Your task to perform on an android device: turn on wifi Image 0: 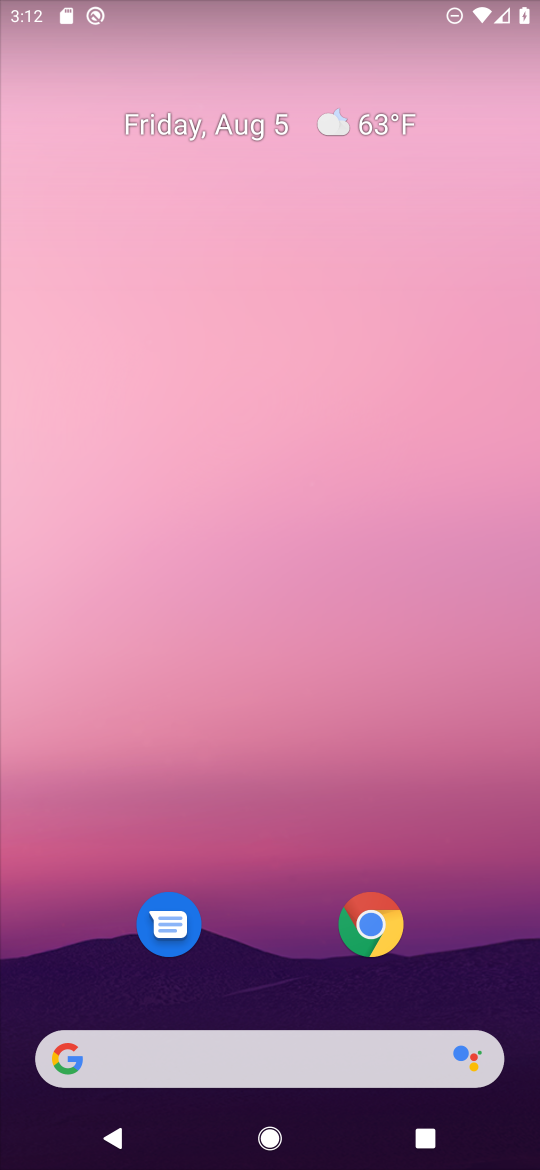
Step 0: press home button
Your task to perform on an android device: turn on wifi Image 1: 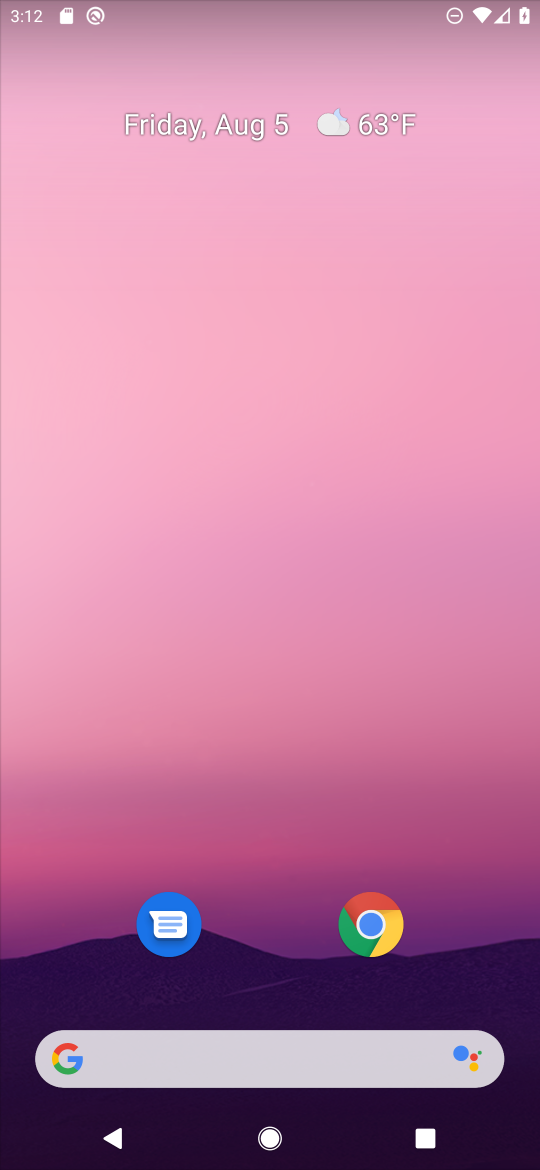
Step 1: drag from (268, 750) to (311, 156)
Your task to perform on an android device: turn on wifi Image 2: 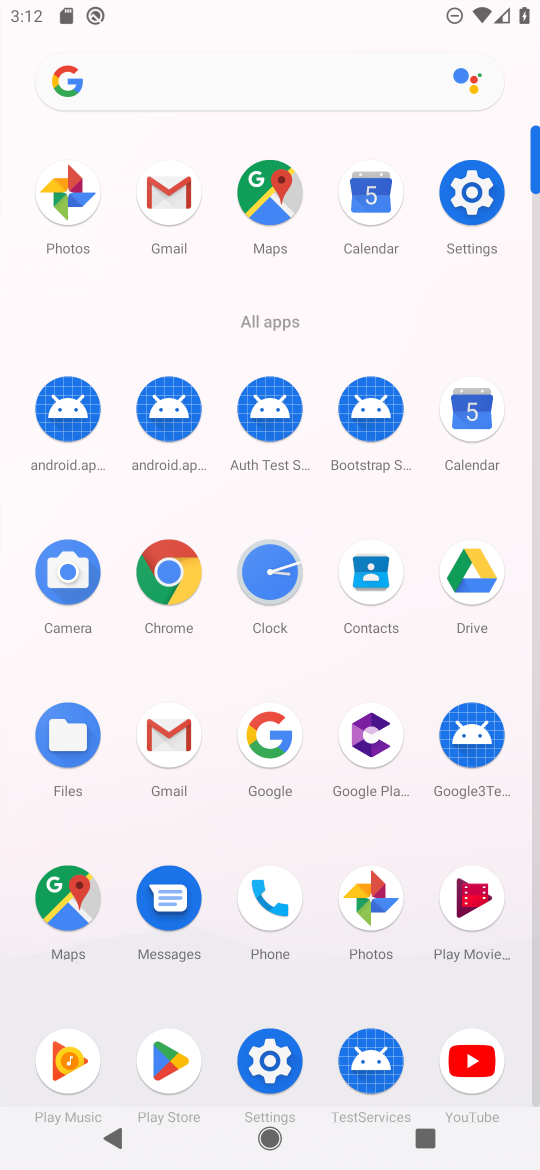
Step 2: click (272, 1057)
Your task to perform on an android device: turn on wifi Image 3: 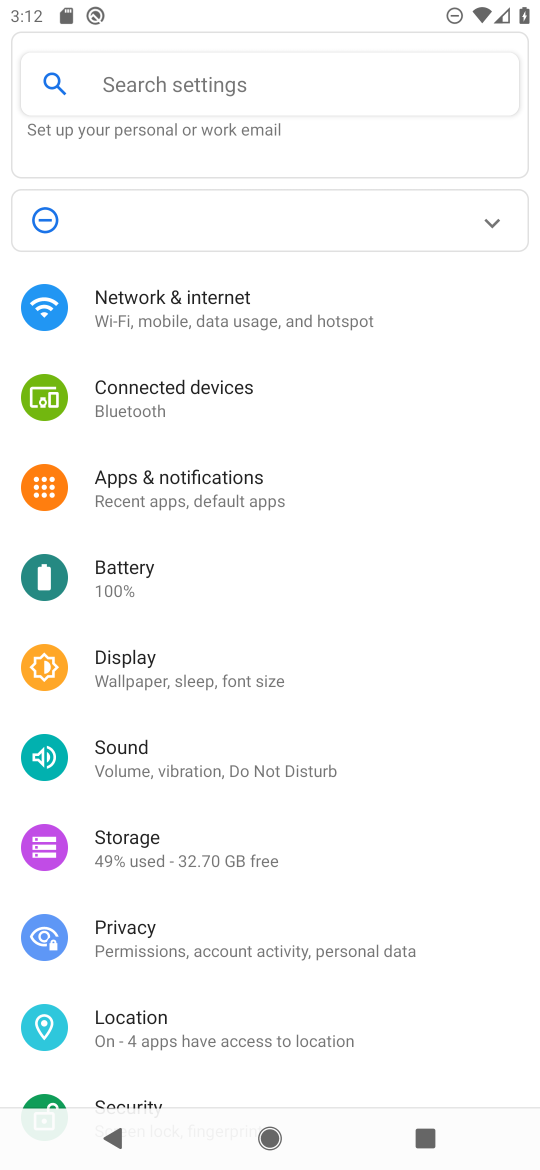
Step 3: click (264, 337)
Your task to perform on an android device: turn on wifi Image 4: 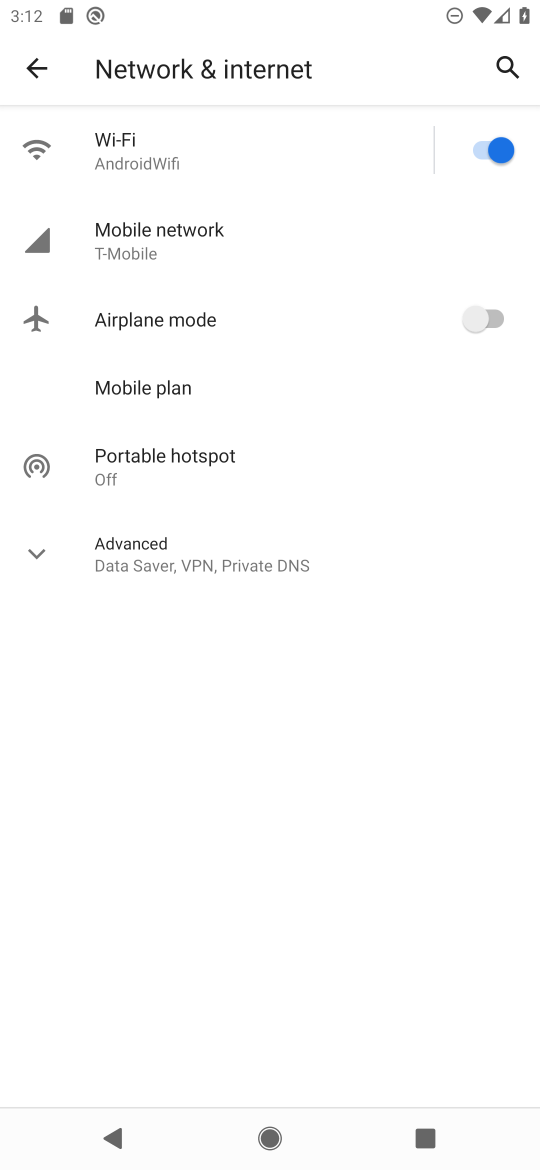
Step 4: click (355, 131)
Your task to perform on an android device: turn on wifi Image 5: 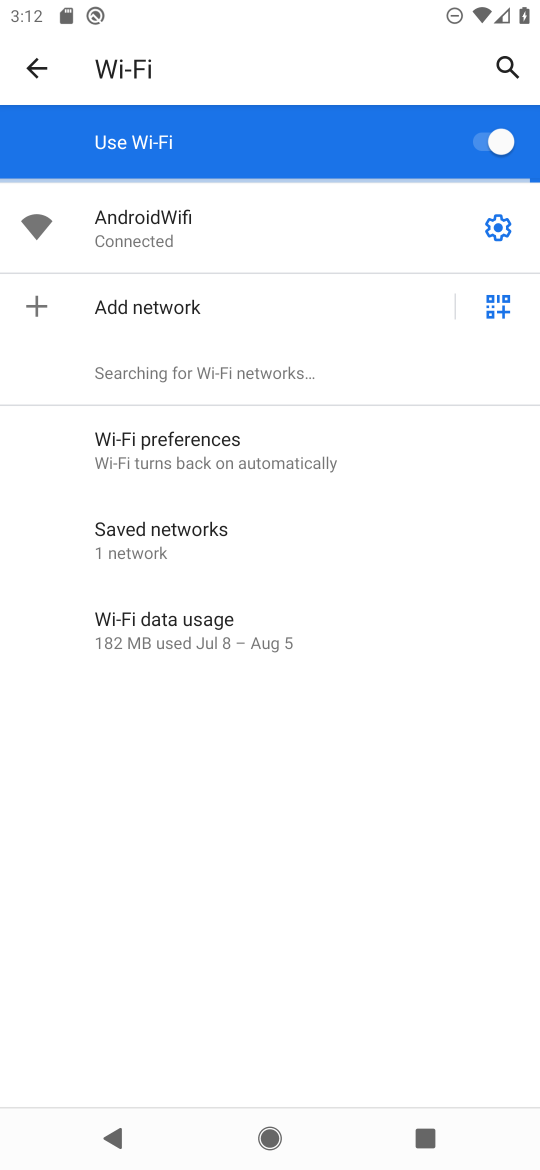
Step 5: task complete